Your task to perform on an android device: Open accessibility settings Image 0: 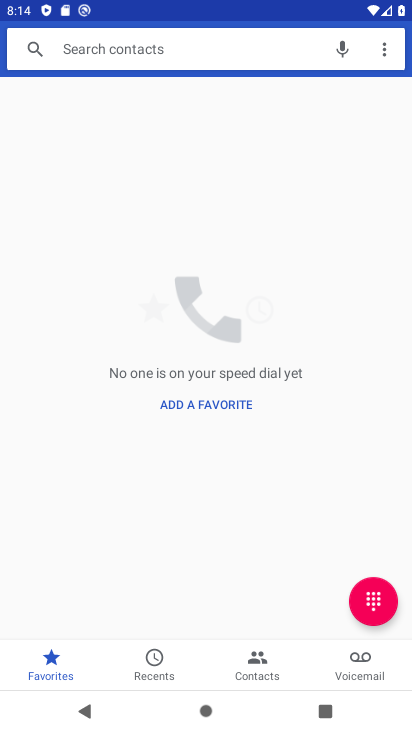
Step 0: press home button
Your task to perform on an android device: Open accessibility settings Image 1: 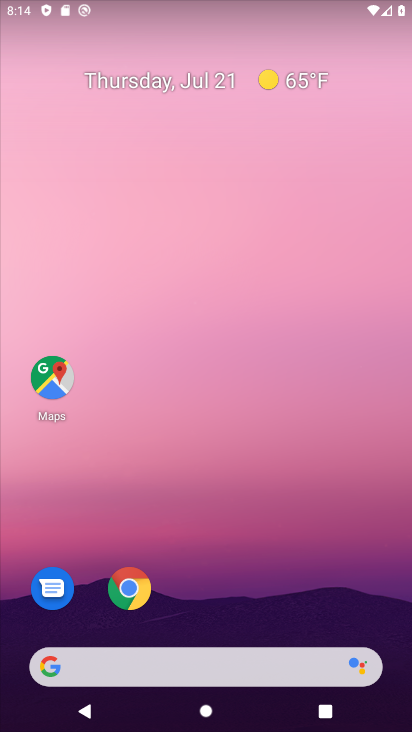
Step 1: drag from (226, 615) to (175, 124)
Your task to perform on an android device: Open accessibility settings Image 2: 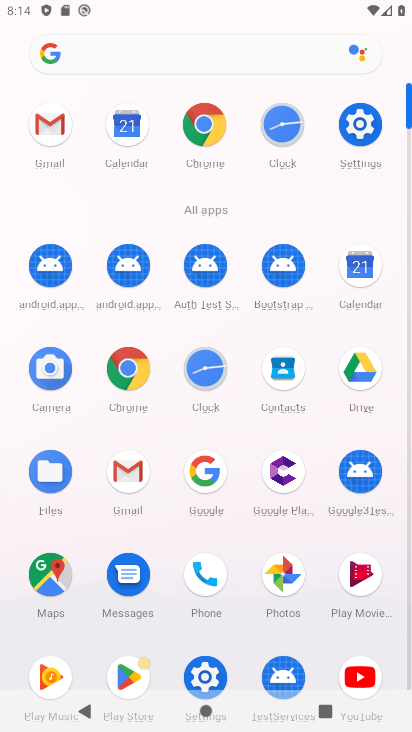
Step 2: click (354, 131)
Your task to perform on an android device: Open accessibility settings Image 3: 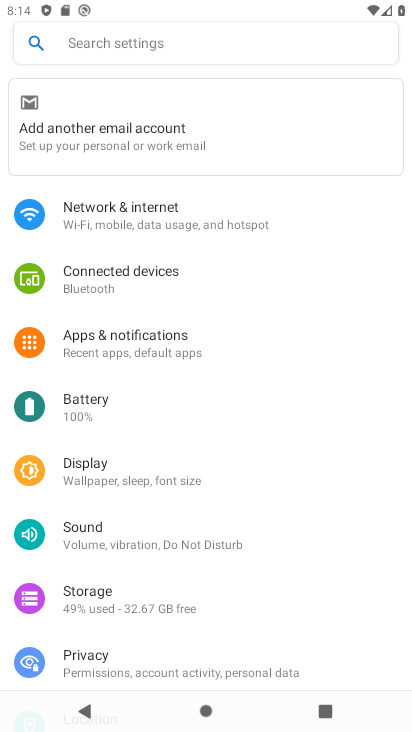
Step 3: drag from (186, 551) to (141, 130)
Your task to perform on an android device: Open accessibility settings Image 4: 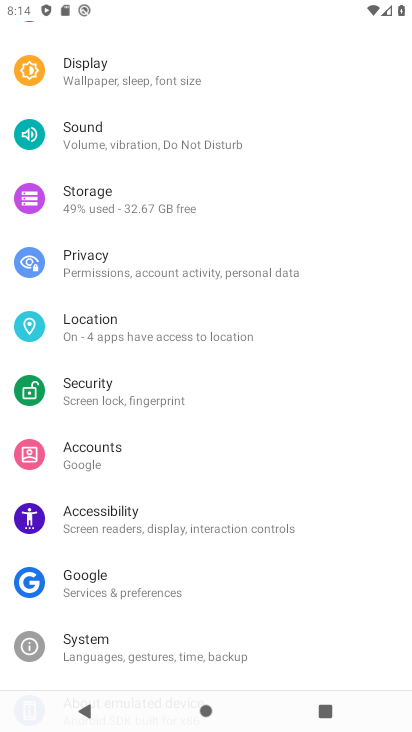
Step 4: click (120, 505)
Your task to perform on an android device: Open accessibility settings Image 5: 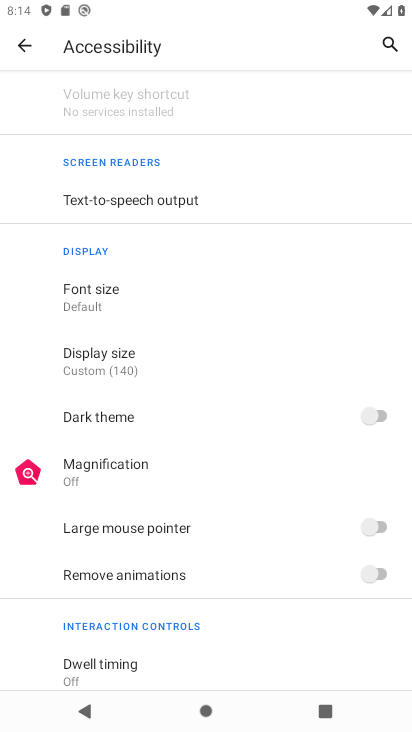
Step 5: task complete